Your task to perform on an android device: turn off location Image 0: 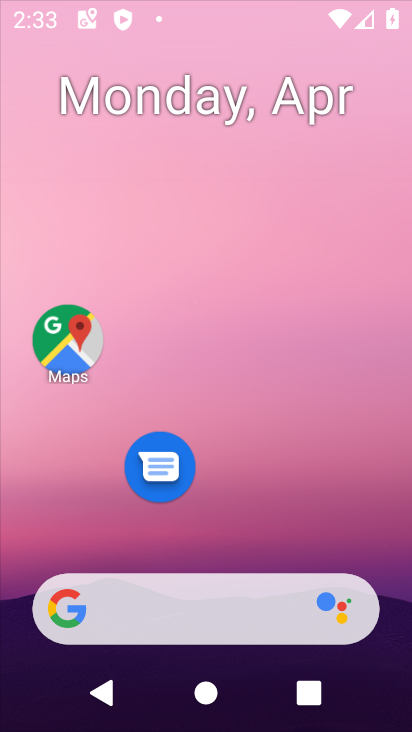
Step 0: drag from (264, 539) to (363, 34)
Your task to perform on an android device: turn off location Image 1: 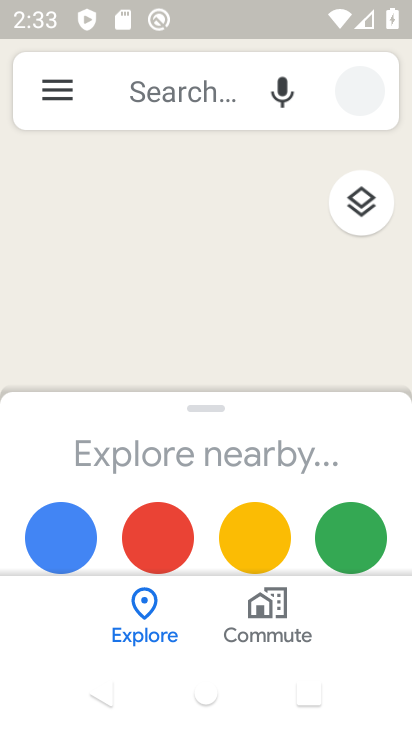
Step 1: press home button
Your task to perform on an android device: turn off location Image 2: 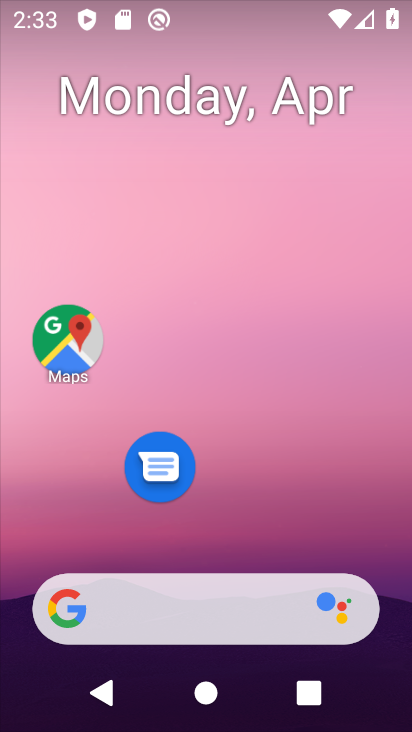
Step 2: drag from (256, 355) to (328, 13)
Your task to perform on an android device: turn off location Image 3: 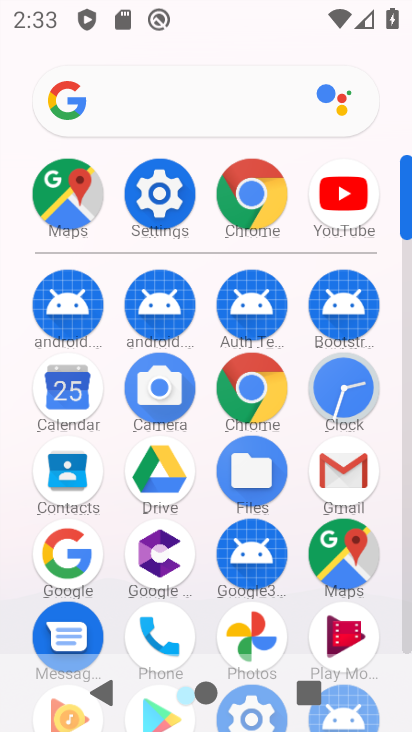
Step 3: click (162, 198)
Your task to perform on an android device: turn off location Image 4: 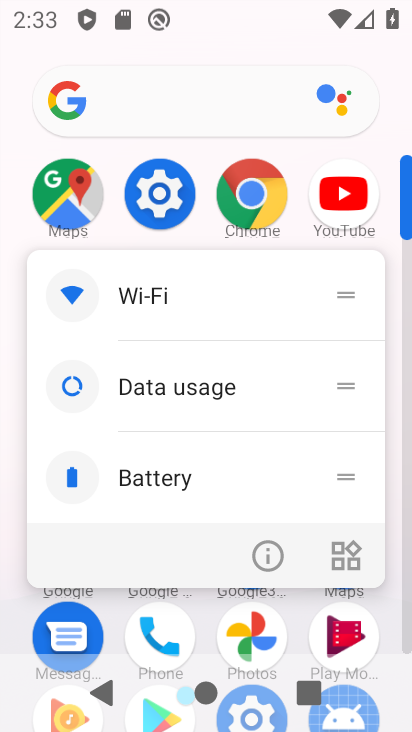
Step 4: click (172, 204)
Your task to perform on an android device: turn off location Image 5: 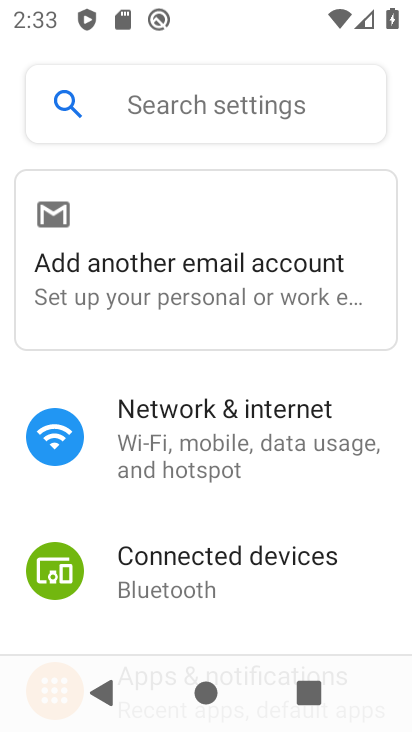
Step 5: drag from (221, 494) to (188, 329)
Your task to perform on an android device: turn off location Image 6: 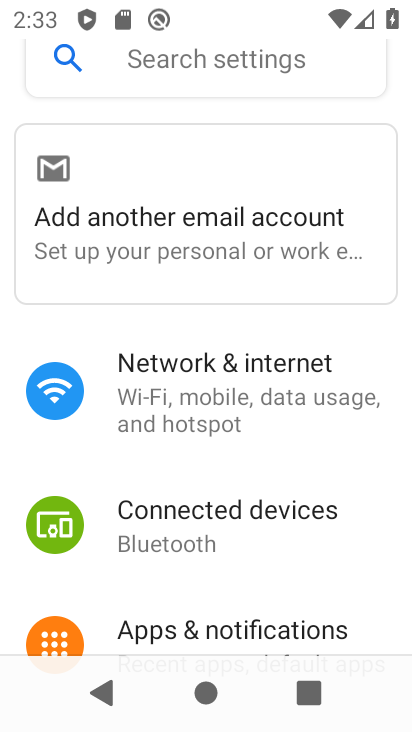
Step 6: drag from (138, 531) to (176, 296)
Your task to perform on an android device: turn off location Image 7: 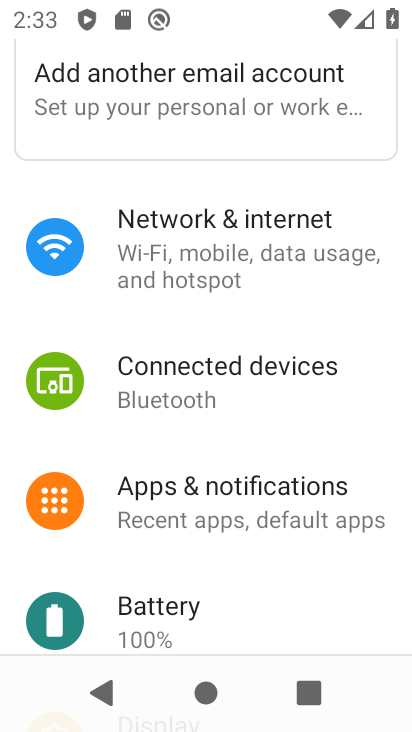
Step 7: drag from (185, 504) to (212, 228)
Your task to perform on an android device: turn off location Image 8: 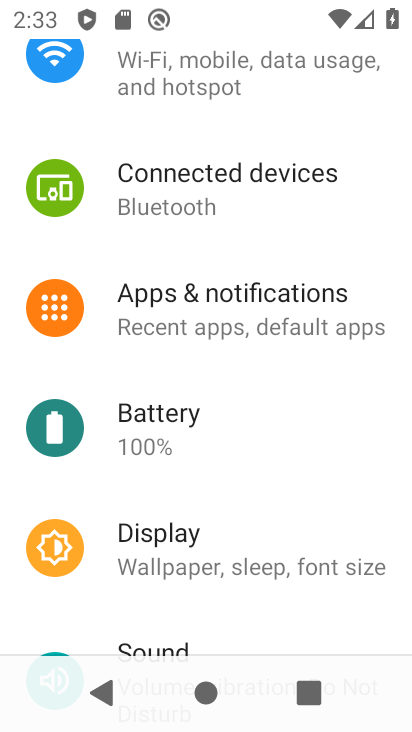
Step 8: drag from (325, 497) to (389, 174)
Your task to perform on an android device: turn off location Image 9: 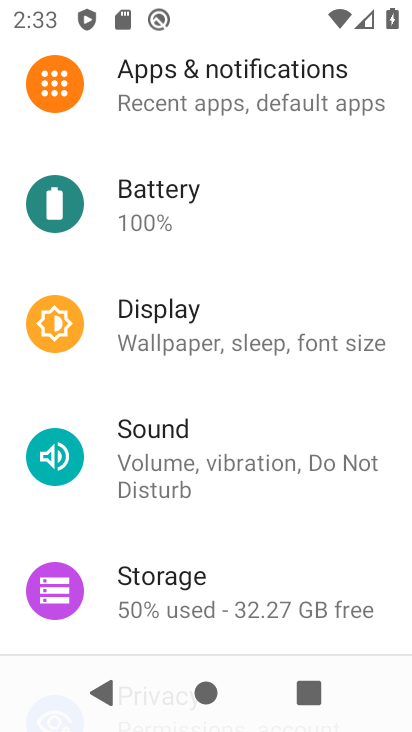
Step 9: drag from (306, 530) to (363, 181)
Your task to perform on an android device: turn off location Image 10: 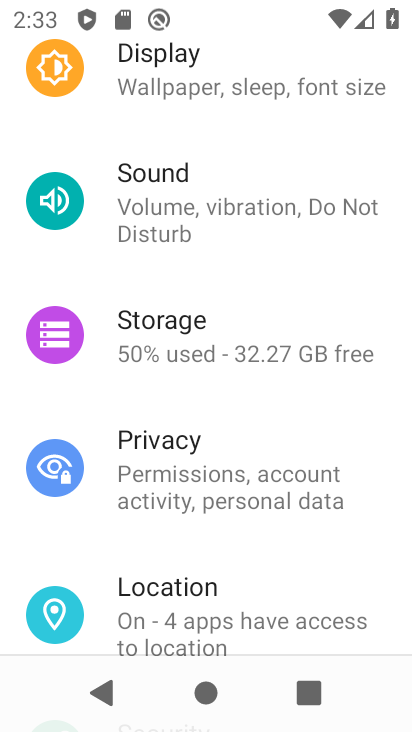
Step 10: click (240, 599)
Your task to perform on an android device: turn off location Image 11: 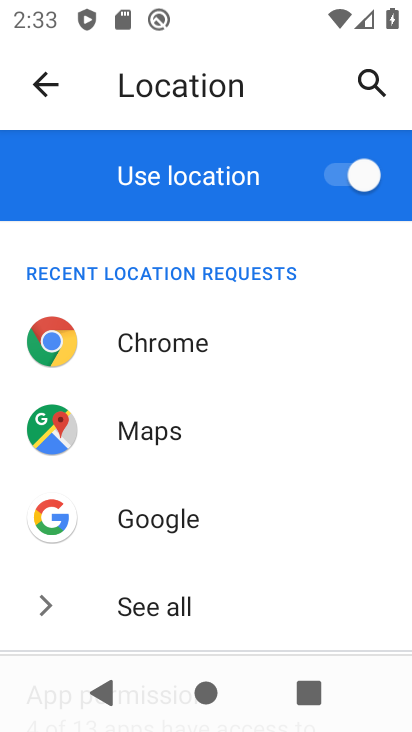
Step 11: click (317, 204)
Your task to perform on an android device: turn off location Image 12: 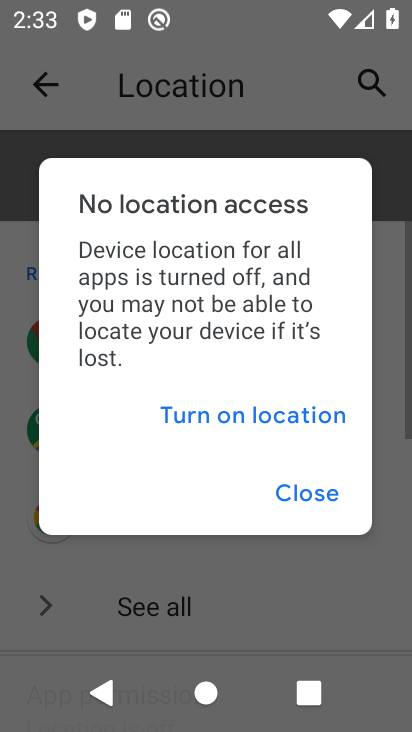
Step 12: task complete